Your task to perform on an android device: move a message to another label in the gmail app Image 0: 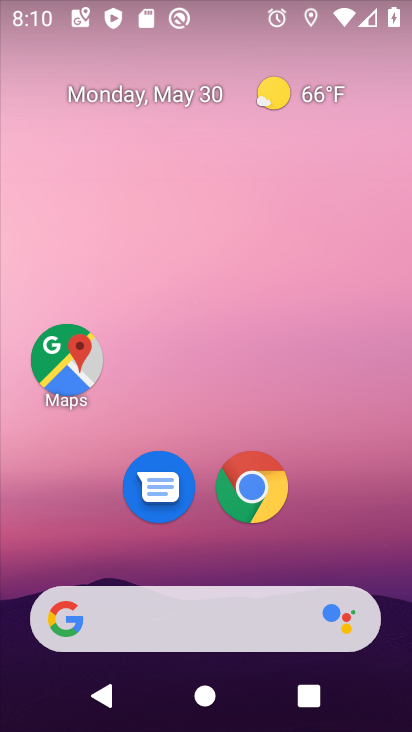
Step 0: drag from (315, 548) to (202, 128)
Your task to perform on an android device: move a message to another label in the gmail app Image 1: 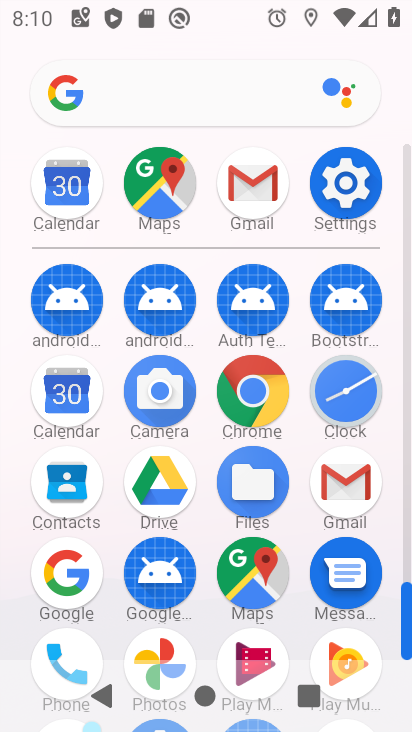
Step 1: click (260, 197)
Your task to perform on an android device: move a message to another label in the gmail app Image 2: 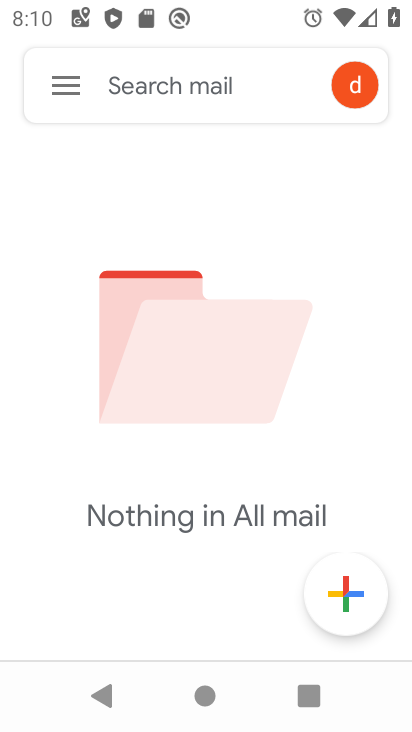
Step 2: click (60, 96)
Your task to perform on an android device: move a message to another label in the gmail app Image 3: 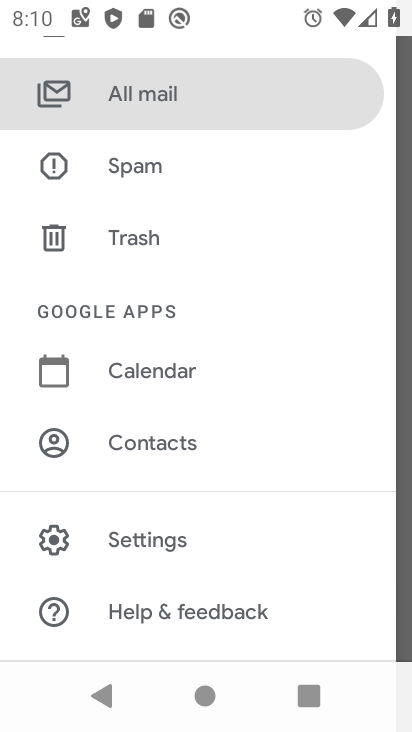
Step 3: drag from (287, 248) to (290, 453)
Your task to perform on an android device: move a message to another label in the gmail app Image 4: 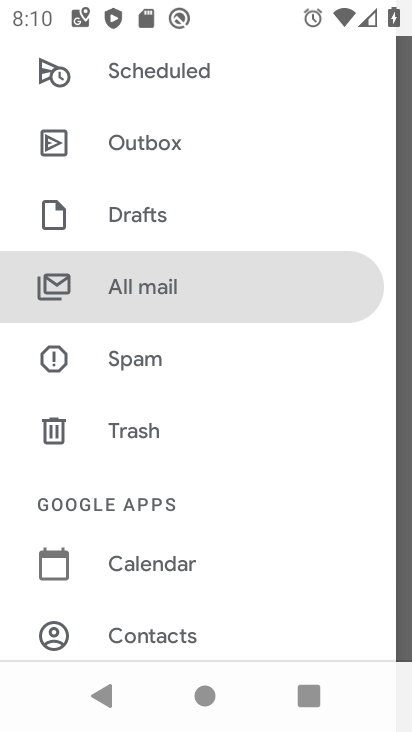
Step 4: click (201, 281)
Your task to perform on an android device: move a message to another label in the gmail app Image 5: 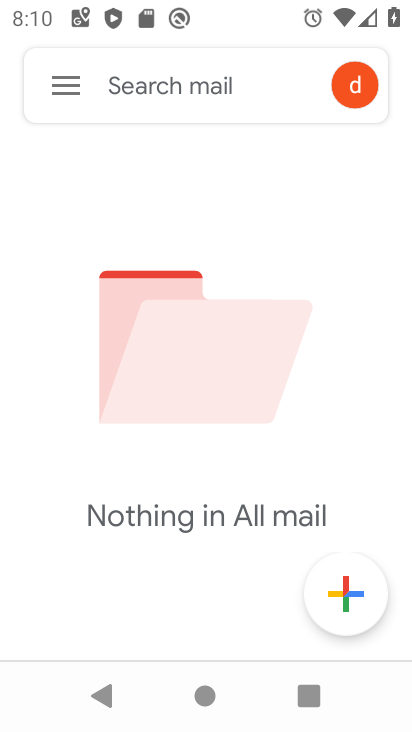
Step 5: task complete